Your task to perform on an android device: turn on improve location accuracy Image 0: 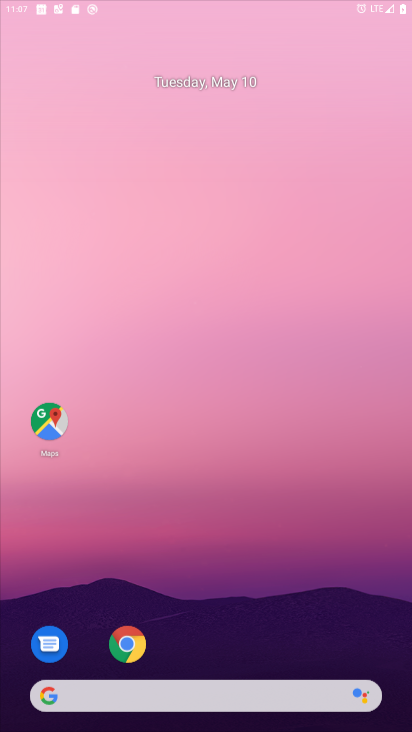
Step 0: drag from (328, 618) to (327, 281)
Your task to perform on an android device: turn on improve location accuracy Image 1: 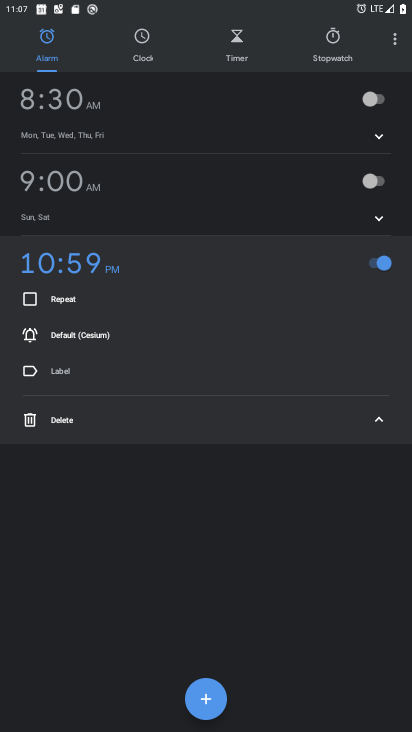
Step 1: press home button
Your task to perform on an android device: turn on improve location accuracy Image 2: 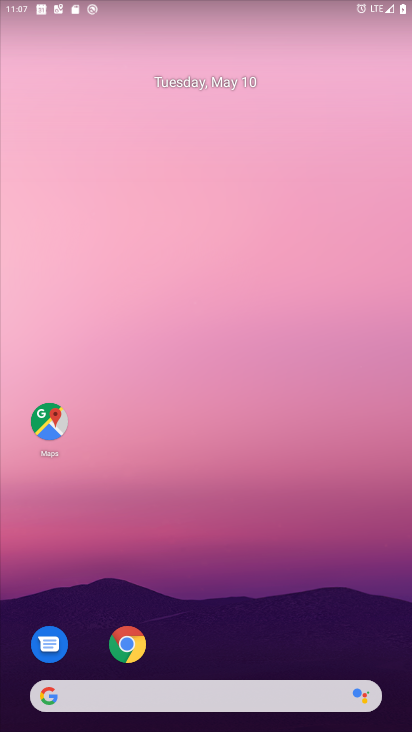
Step 2: drag from (252, 601) to (267, 223)
Your task to perform on an android device: turn on improve location accuracy Image 3: 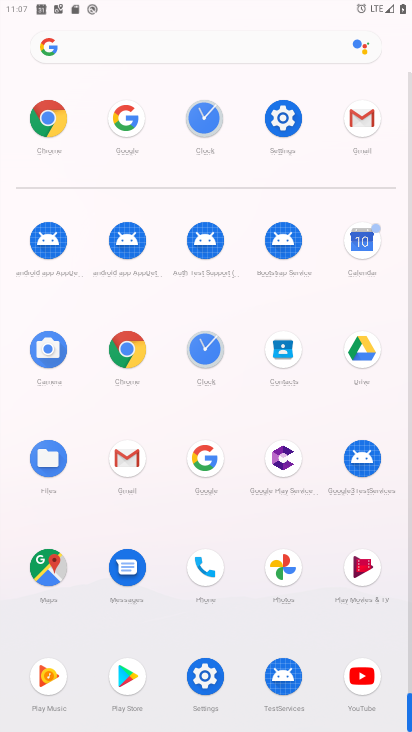
Step 3: click (291, 122)
Your task to perform on an android device: turn on improve location accuracy Image 4: 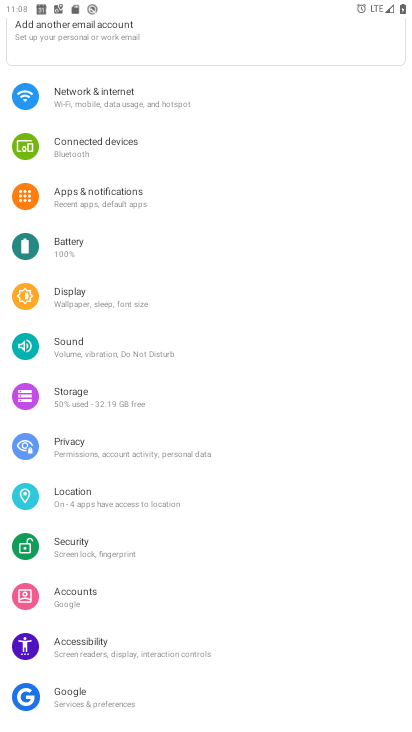
Step 4: click (134, 501)
Your task to perform on an android device: turn on improve location accuracy Image 5: 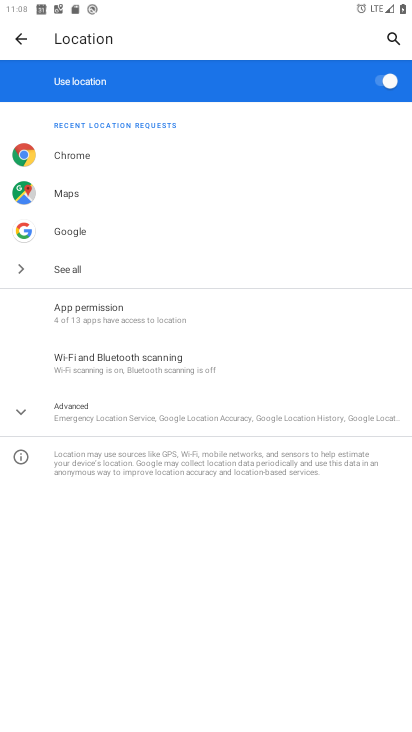
Step 5: click (178, 415)
Your task to perform on an android device: turn on improve location accuracy Image 6: 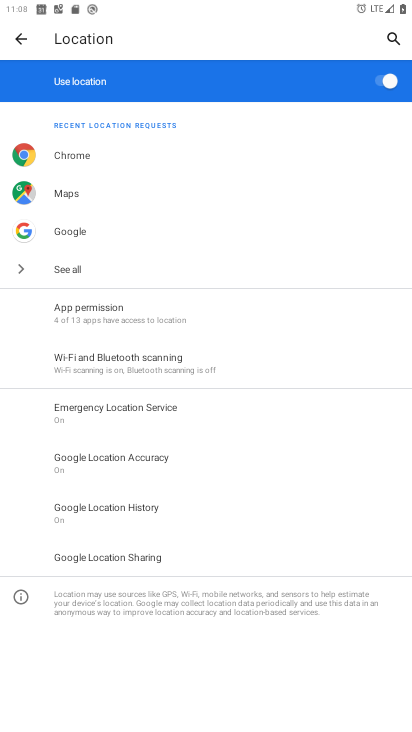
Step 6: click (123, 464)
Your task to perform on an android device: turn on improve location accuracy Image 7: 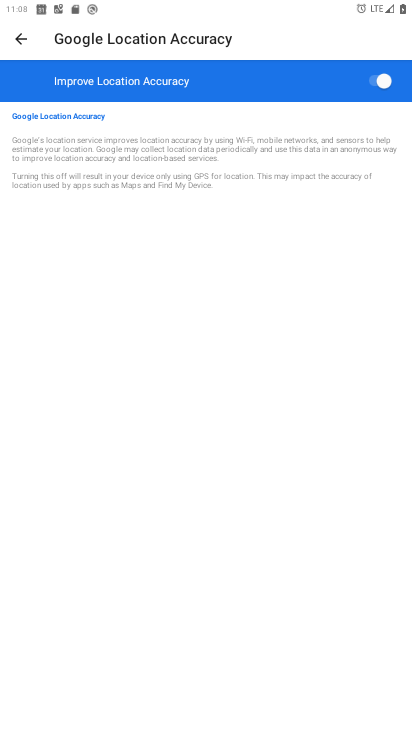
Step 7: task complete